Your task to perform on an android device: Is it going to rain this weekend? Image 0: 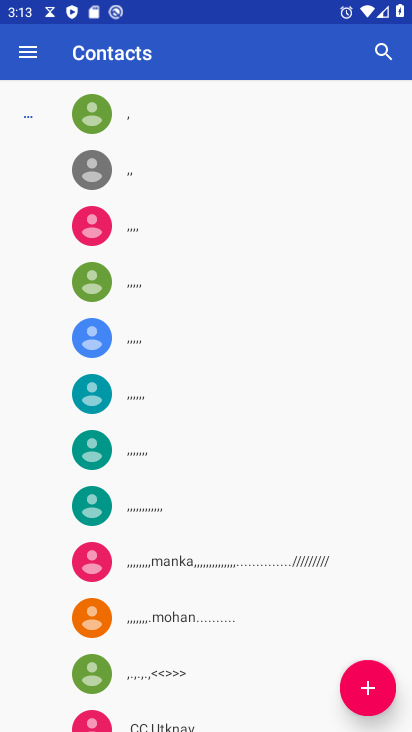
Step 0: press home button
Your task to perform on an android device: Is it going to rain this weekend? Image 1: 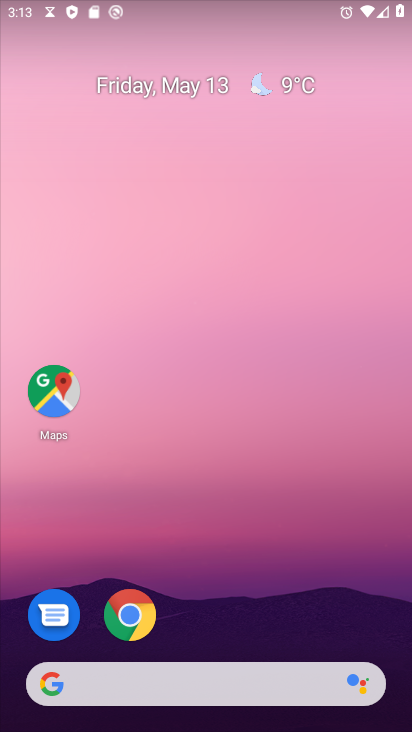
Step 1: click (261, 84)
Your task to perform on an android device: Is it going to rain this weekend? Image 2: 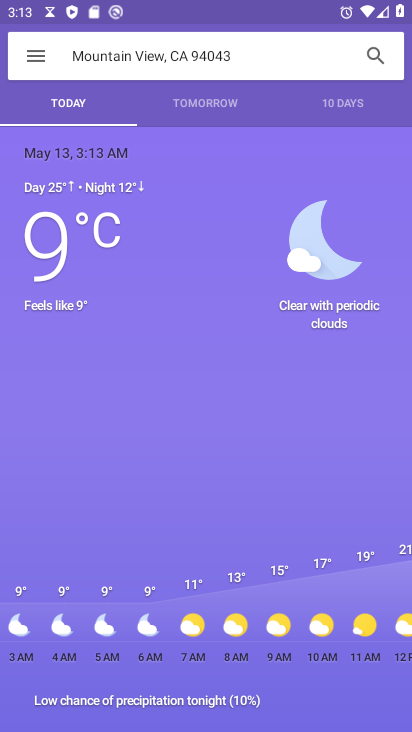
Step 2: click (329, 99)
Your task to perform on an android device: Is it going to rain this weekend? Image 3: 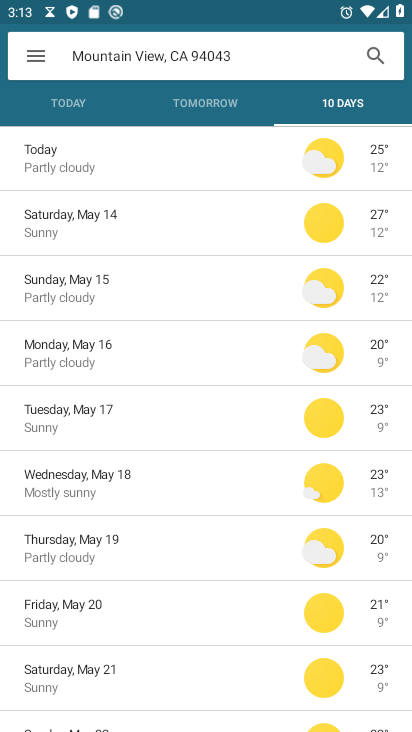
Step 3: click (79, 224)
Your task to perform on an android device: Is it going to rain this weekend? Image 4: 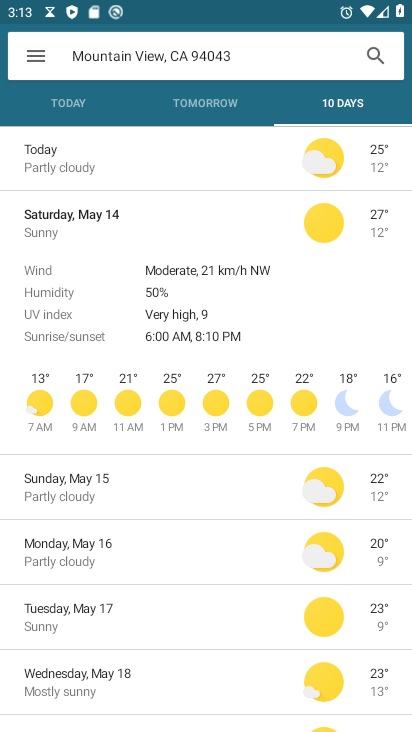
Step 4: task complete